Your task to perform on an android device: allow notifications from all sites in the chrome app Image 0: 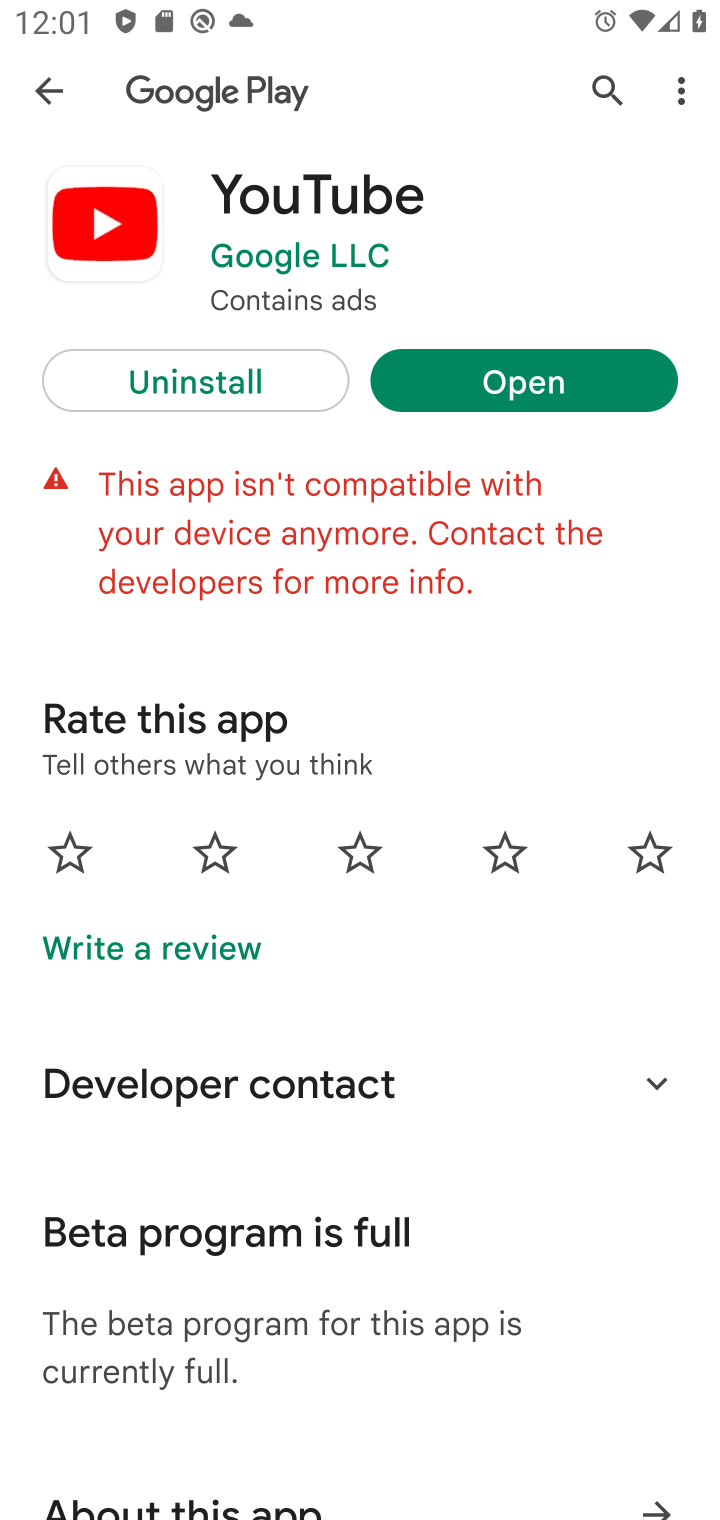
Step 0: press home button
Your task to perform on an android device: allow notifications from all sites in the chrome app Image 1: 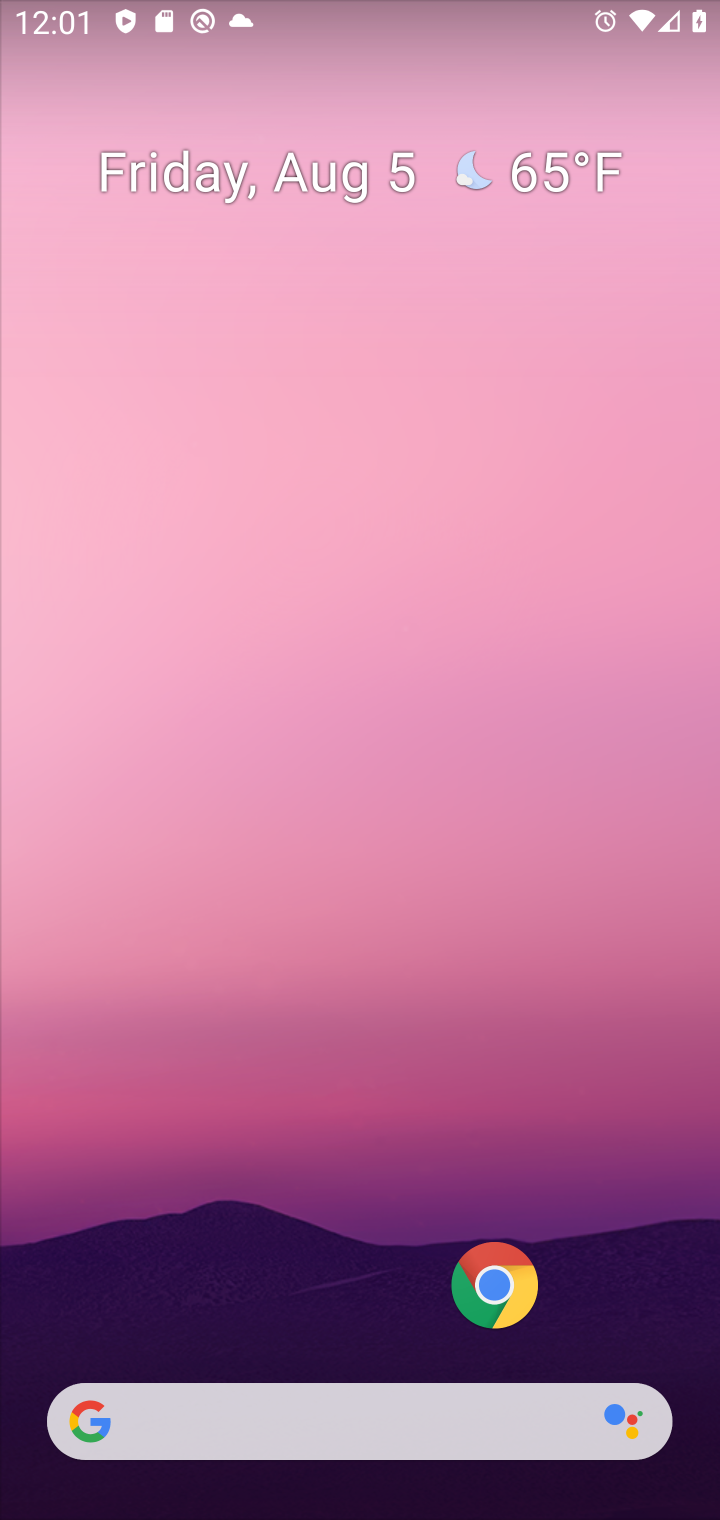
Step 1: drag from (332, 1089) to (387, 42)
Your task to perform on an android device: allow notifications from all sites in the chrome app Image 2: 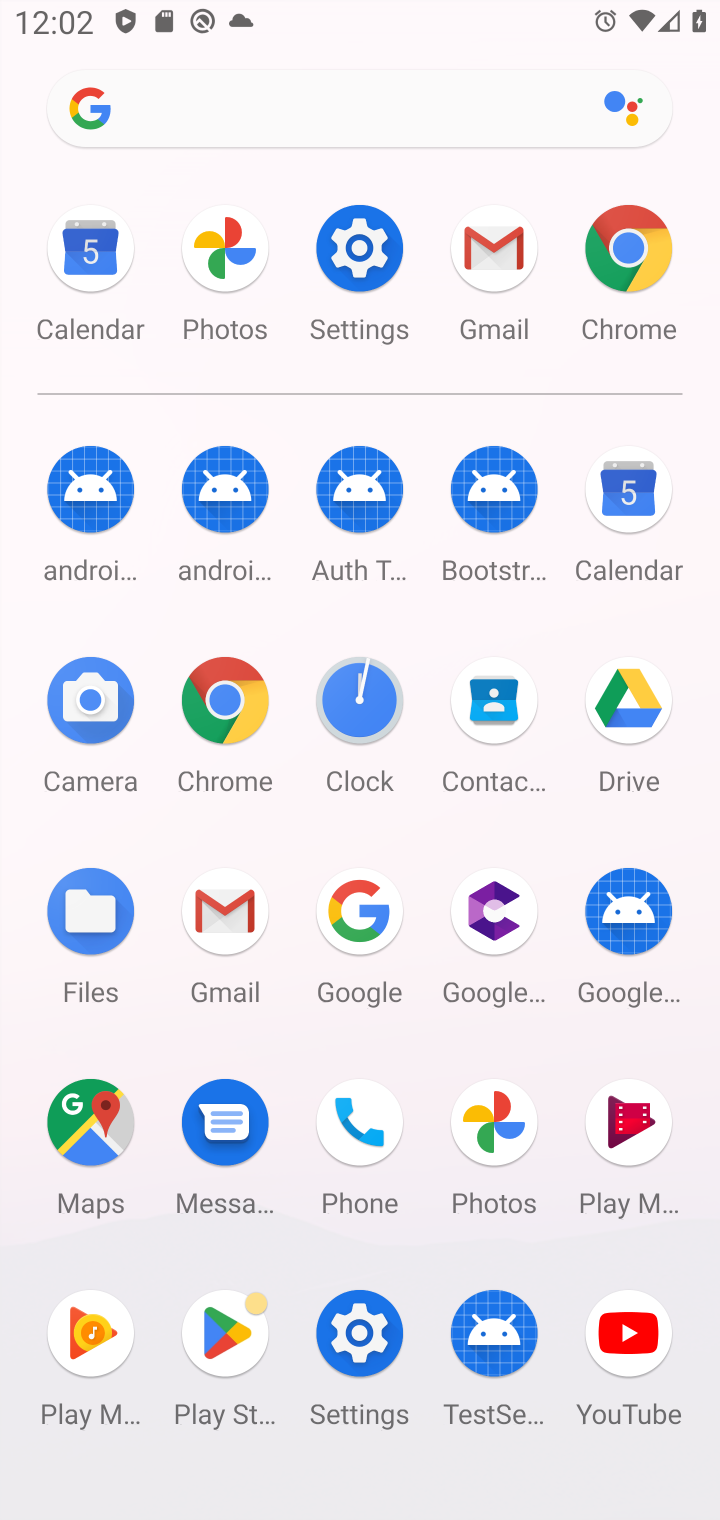
Step 2: click (658, 269)
Your task to perform on an android device: allow notifications from all sites in the chrome app Image 3: 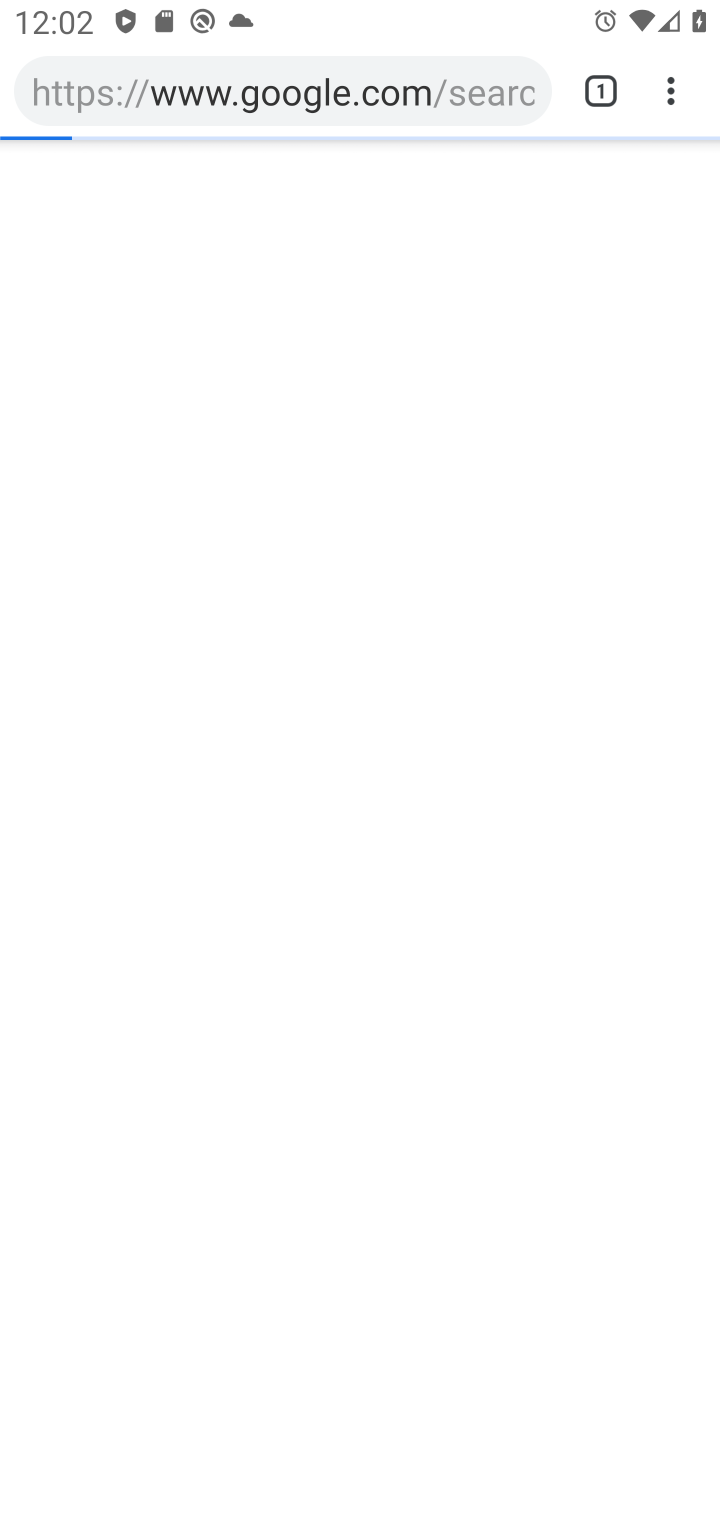
Step 3: click (664, 77)
Your task to perform on an android device: allow notifications from all sites in the chrome app Image 4: 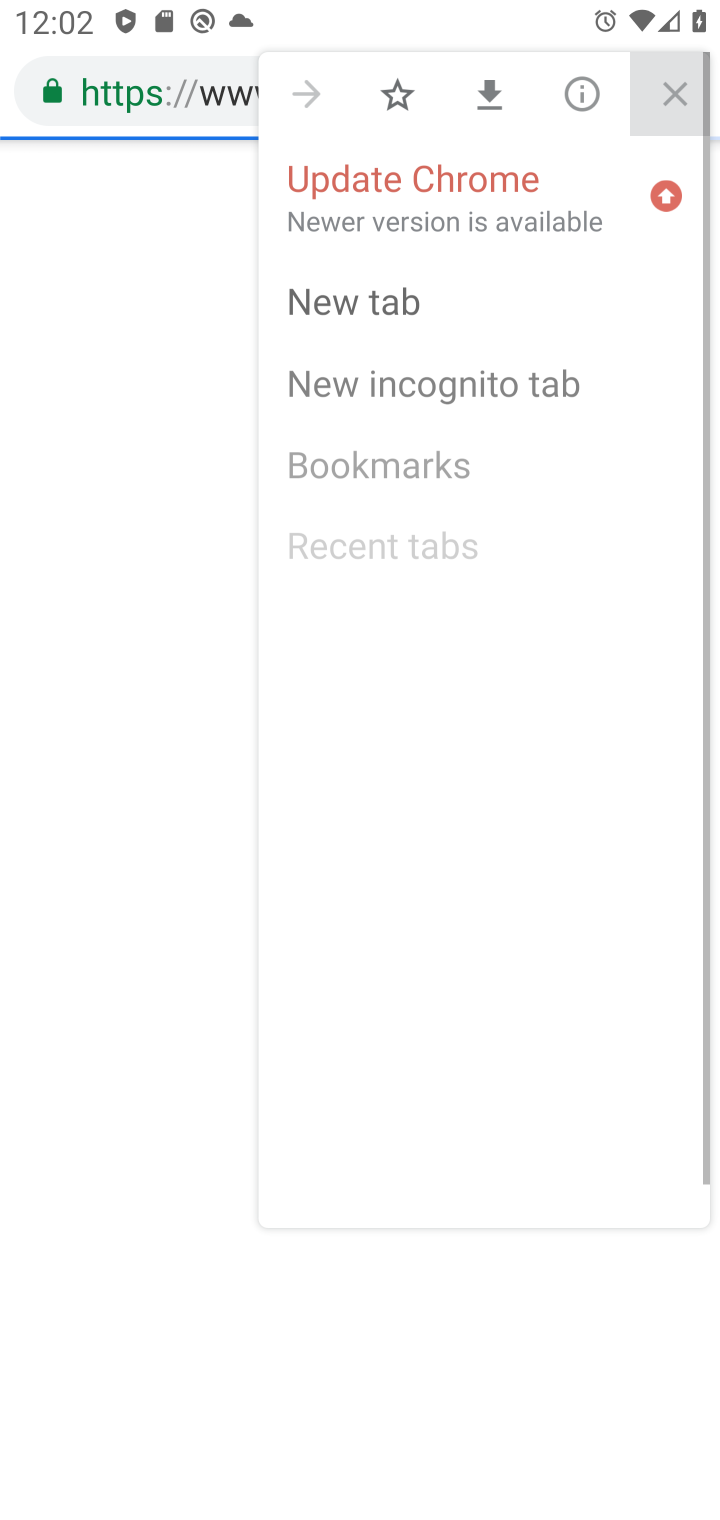
Step 4: press home button
Your task to perform on an android device: allow notifications from all sites in the chrome app Image 5: 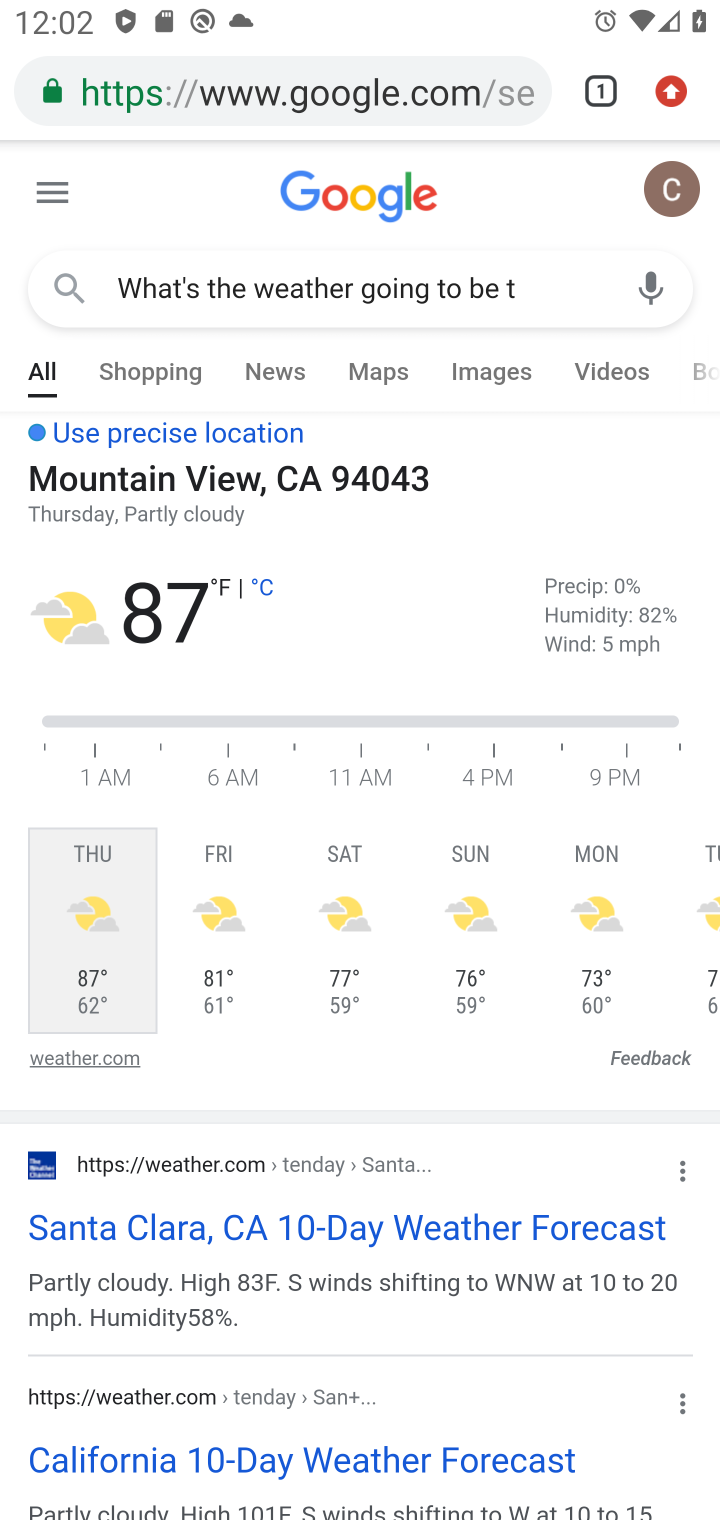
Step 5: press home button
Your task to perform on an android device: allow notifications from all sites in the chrome app Image 6: 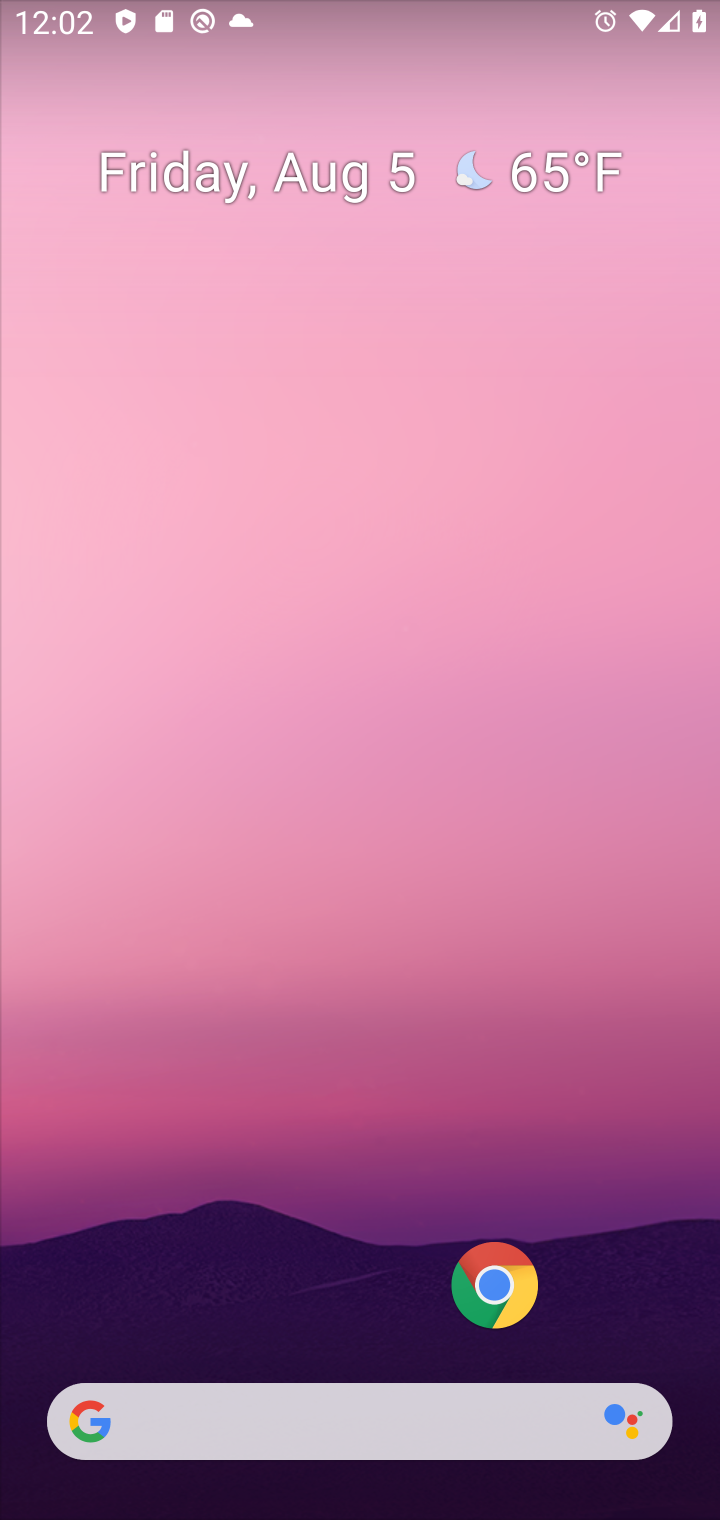
Step 6: press home button
Your task to perform on an android device: allow notifications from all sites in the chrome app Image 7: 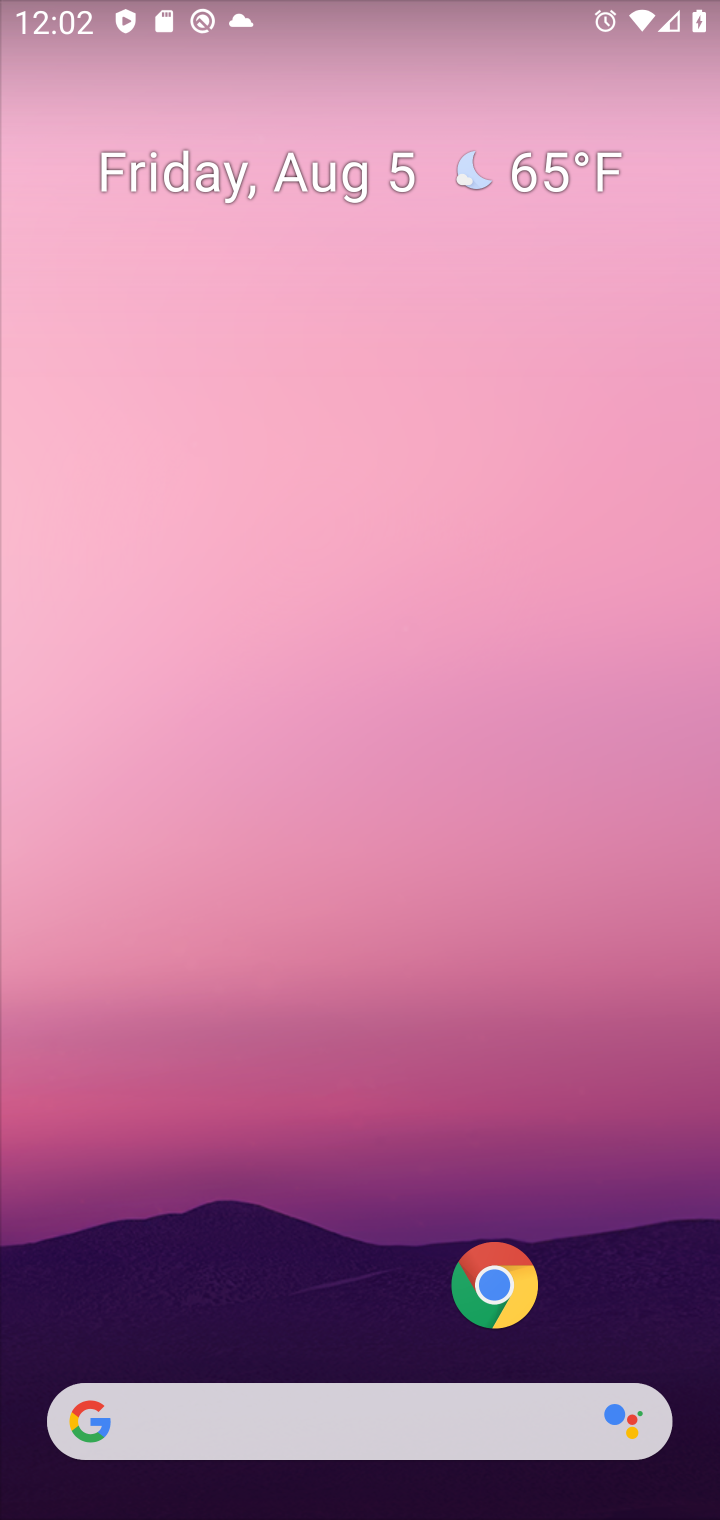
Step 7: click (480, 1279)
Your task to perform on an android device: allow notifications from all sites in the chrome app Image 8: 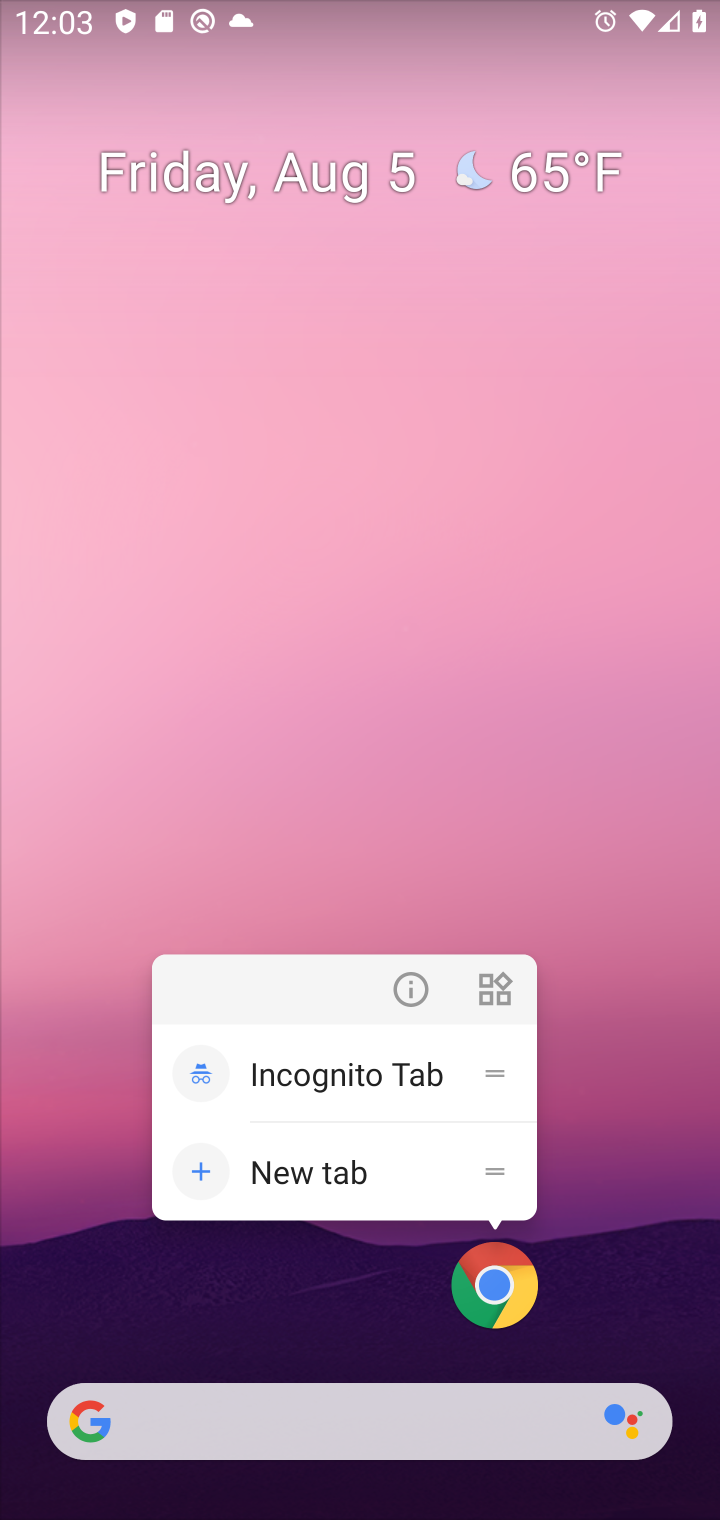
Step 8: click (480, 1279)
Your task to perform on an android device: allow notifications from all sites in the chrome app Image 9: 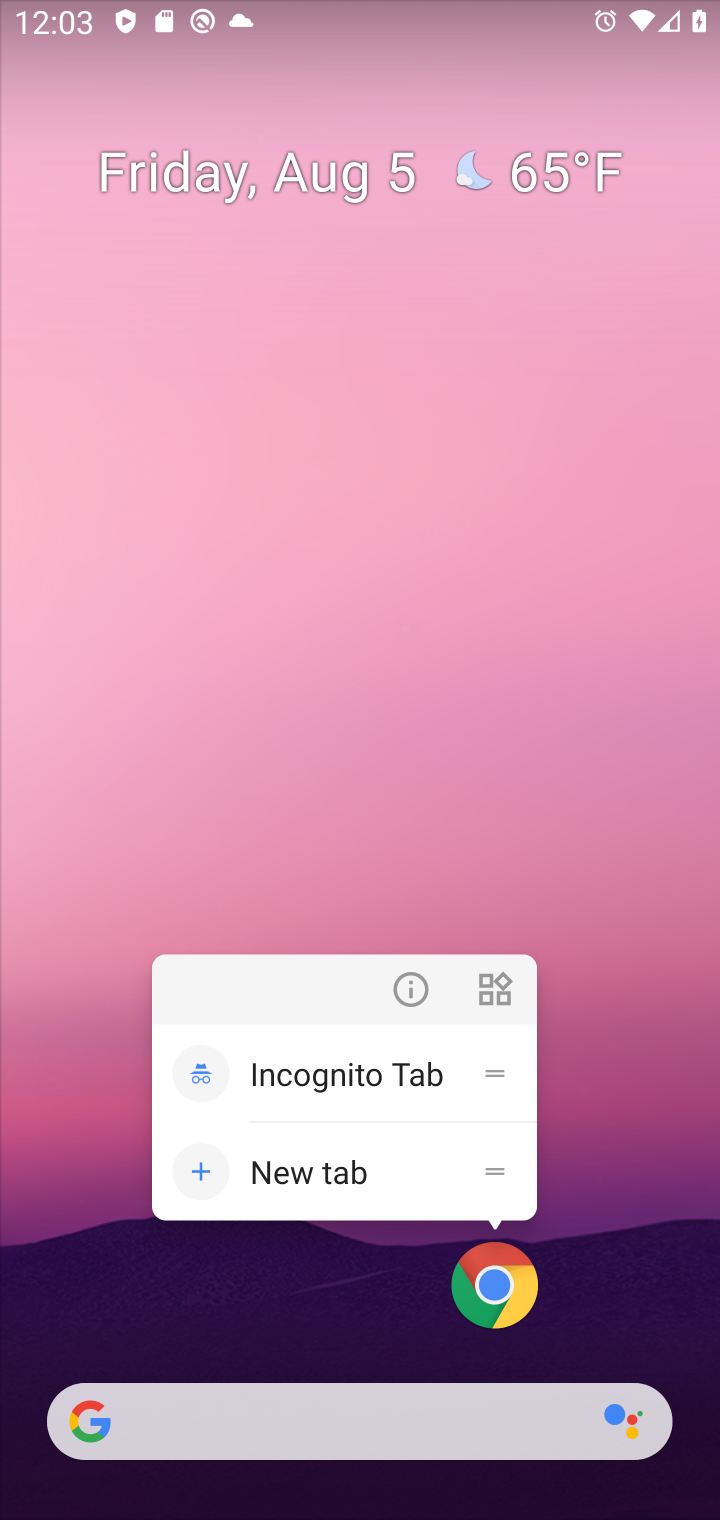
Step 9: click (402, 984)
Your task to perform on an android device: allow notifications from all sites in the chrome app Image 10: 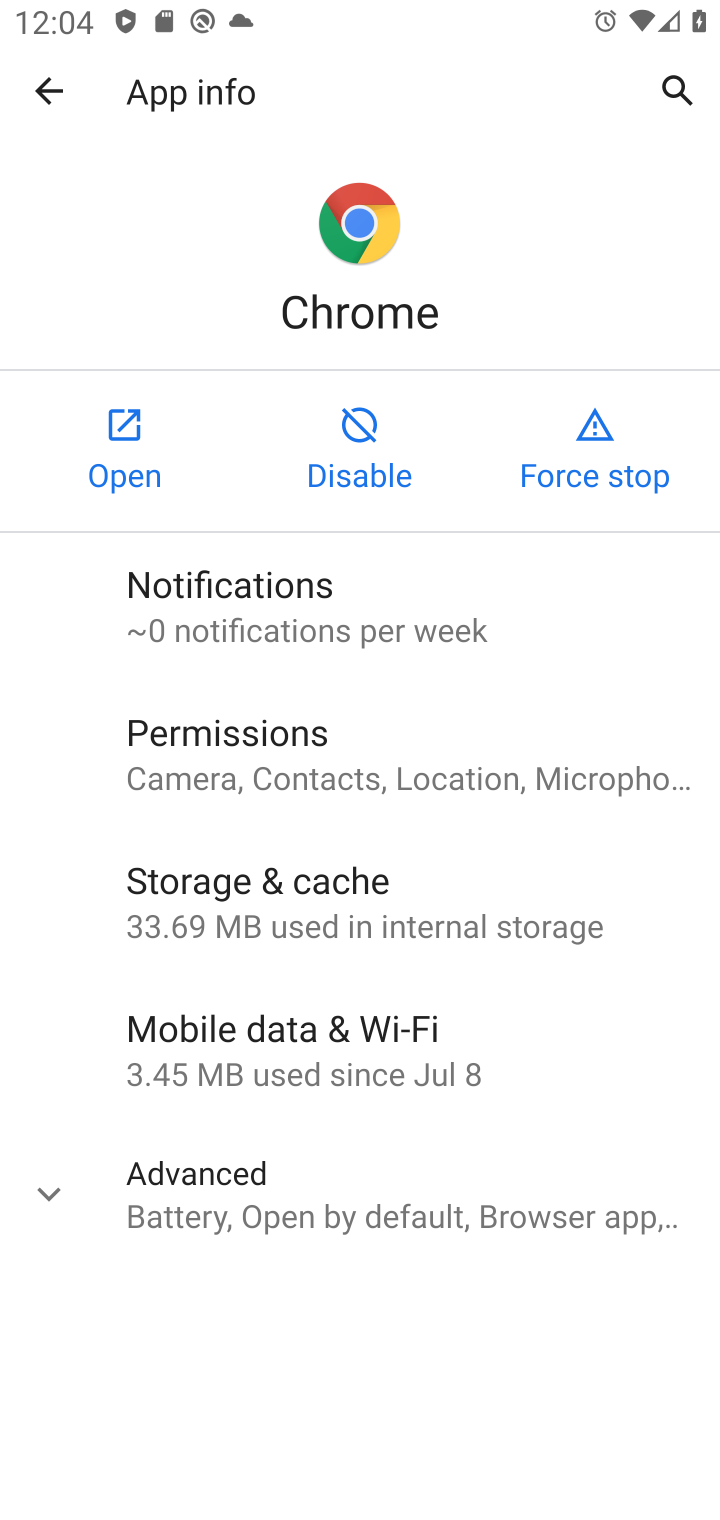
Step 10: click (302, 811)
Your task to perform on an android device: allow notifications from all sites in the chrome app Image 11: 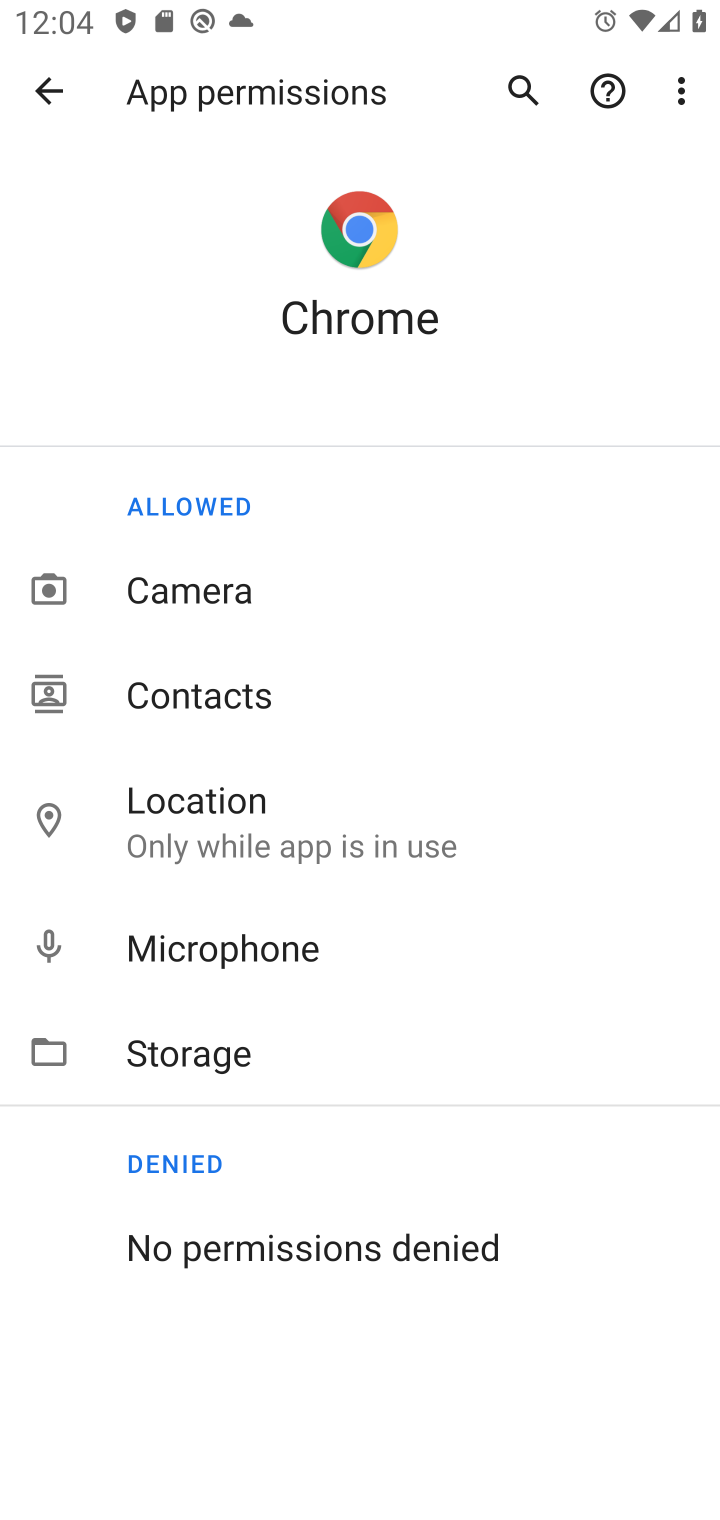
Step 11: task complete